Your task to perform on an android device: turn on priority inbox in the gmail app Image 0: 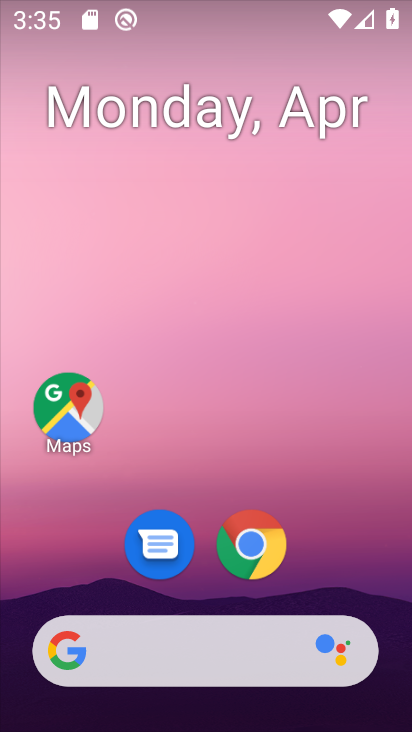
Step 0: drag from (318, 571) to (262, 31)
Your task to perform on an android device: turn on priority inbox in the gmail app Image 1: 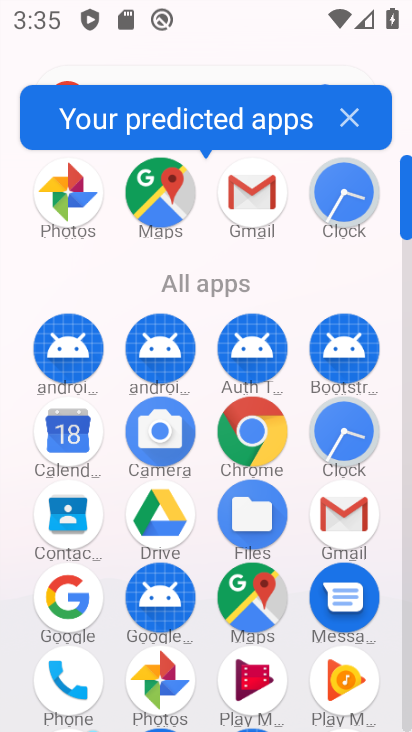
Step 1: click (342, 513)
Your task to perform on an android device: turn on priority inbox in the gmail app Image 2: 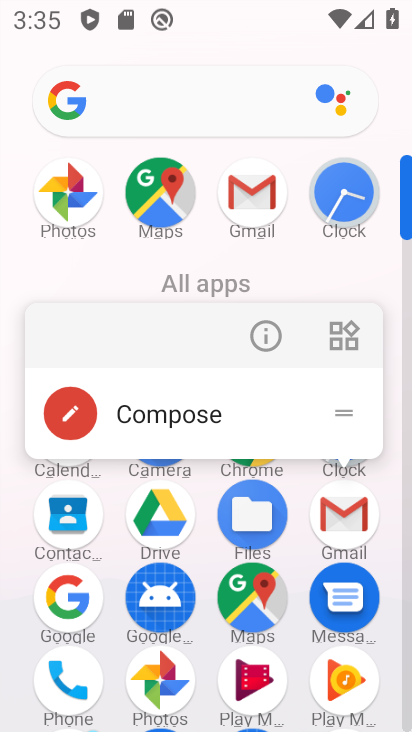
Step 2: click (342, 513)
Your task to perform on an android device: turn on priority inbox in the gmail app Image 3: 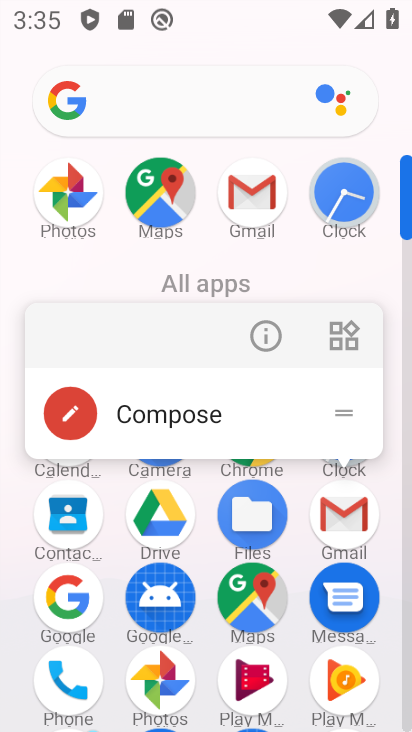
Step 3: click (342, 513)
Your task to perform on an android device: turn on priority inbox in the gmail app Image 4: 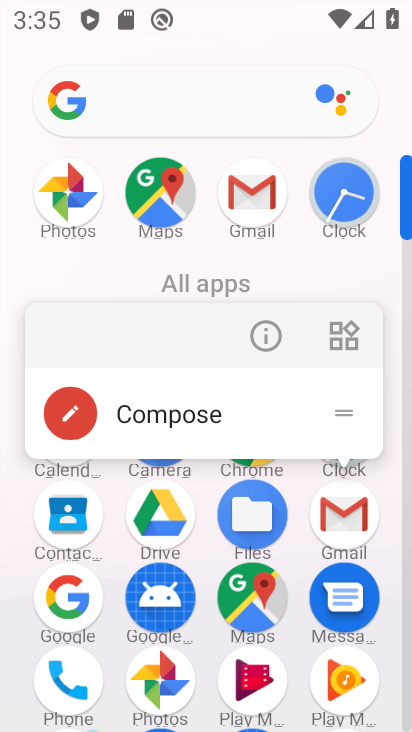
Step 4: click (348, 519)
Your task to perform on an android device: turn on priority inbox in the gmail app Image 5: 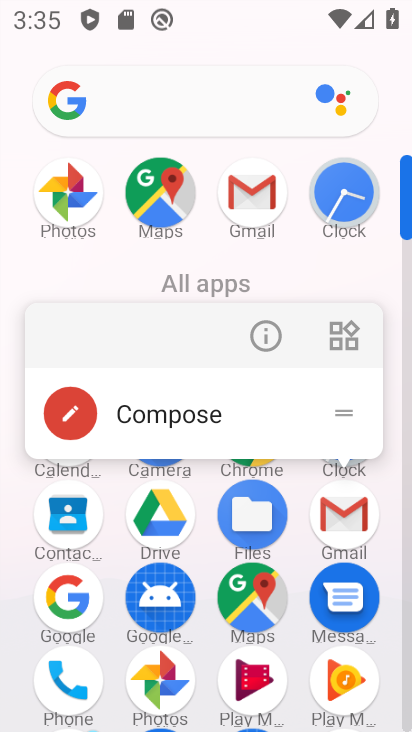
Step 5: click (347, 519)
Your task to perform on an android device: turn on priority inbox in the gmail app Image 6: 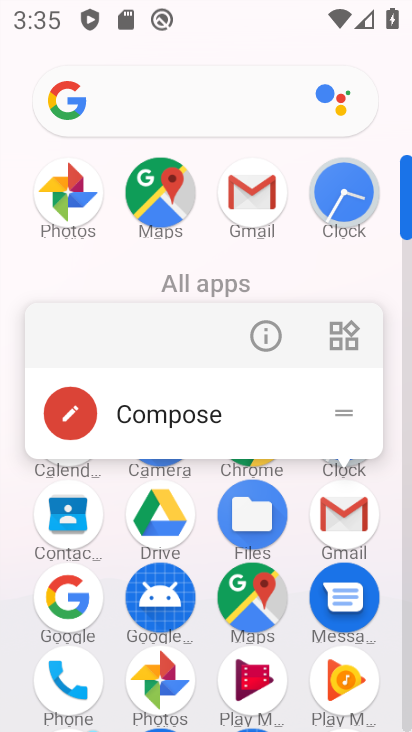
Step 6: click (347, 519)
Your task to perform on an android device: turn on priority inbox in the gmail app Image 7: 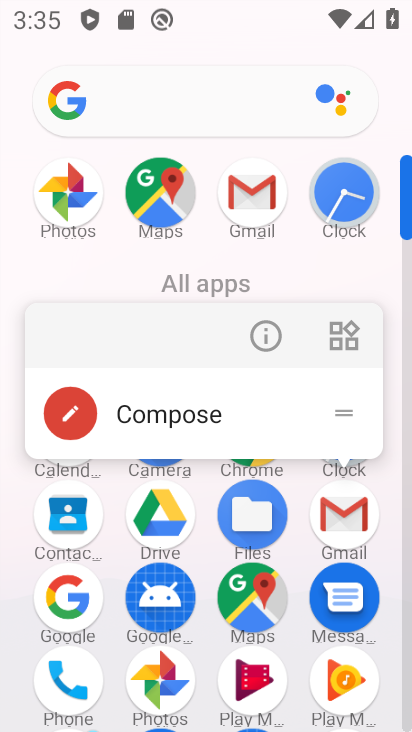
Step 7: click (336, 511)
Your task to perform on an android device: turn on priority inbox in the gmail app Image 8: 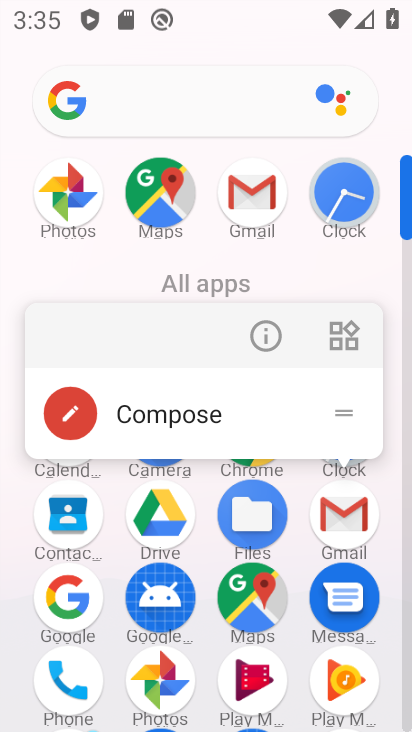
Step 8: click (349, 515)
Your task to perform on an android device: turn on priority inbox in the gmail app Image 9: 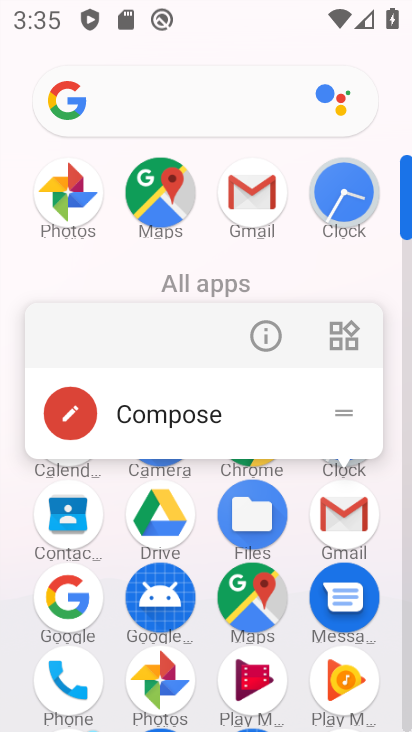
Step 9: click (356, 513)
Your task to perform on an android device: turn on priority inbox in the gmail app Image 10: 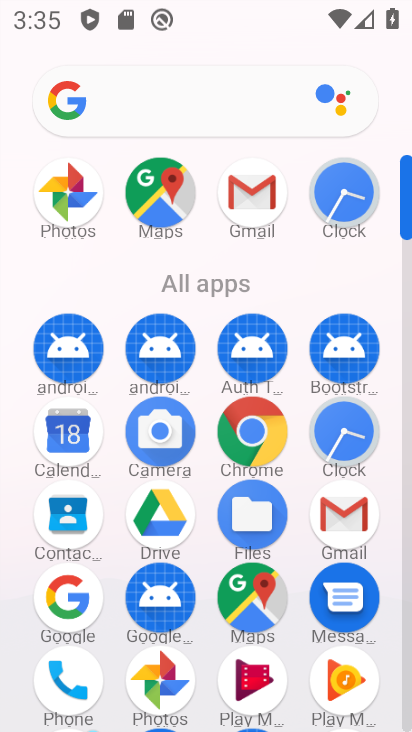
Step 10: click (314, 519)
Your task to perform on an android device: turn on priority inbox in the gmail app Image 11: 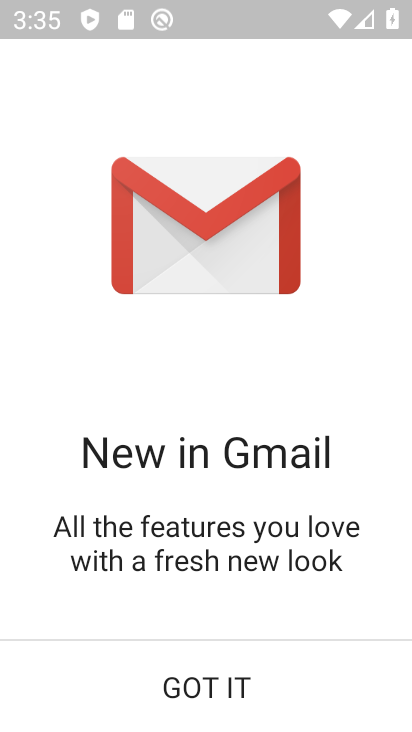
Step 11: click (231, 715)
Your task to perform on an android device: turn on priority inbox in the gmail app Image 12: 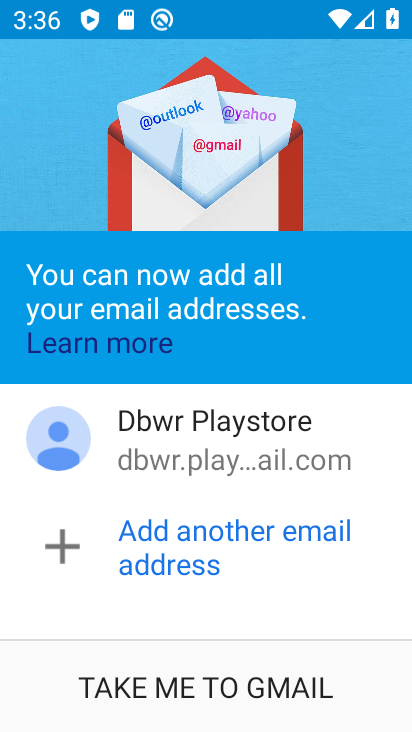
Step 12: click (238, 705)
Your task to perform on an android device: turn on priority inbox in the gmail app Image 13: 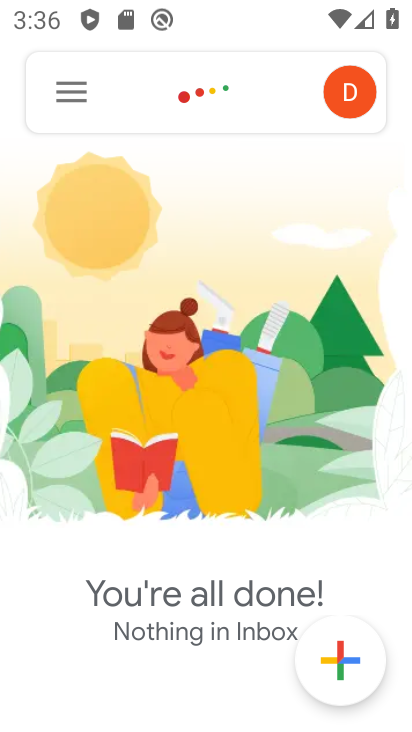
Step 13: click (67, 100)
Your task to perform on an android device: turn on priority inbox in the gmail app Image 14: 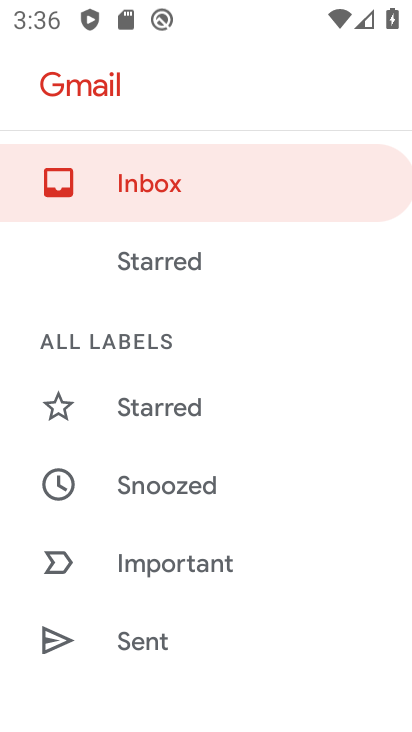
Step 14: drag from (290, 637) to (241, 111)
Your task to perform on an android device: turn on priority inbox in the gmail app Image 15: 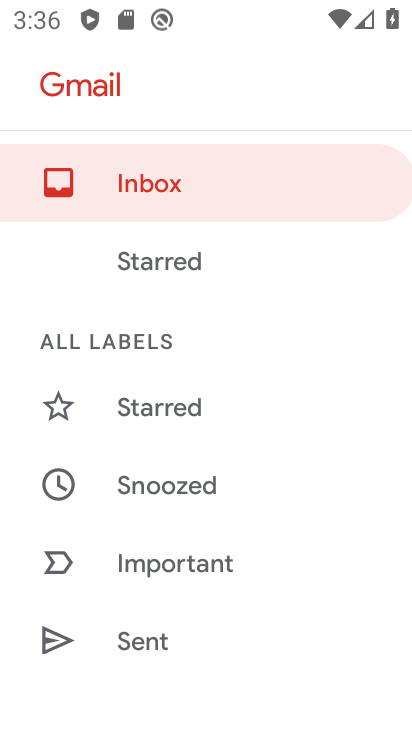
Step 15: drag from (219, 583) to (252, 78)
Your task to perform on an android device: turn on priority inbox in the gmail app Image 16: 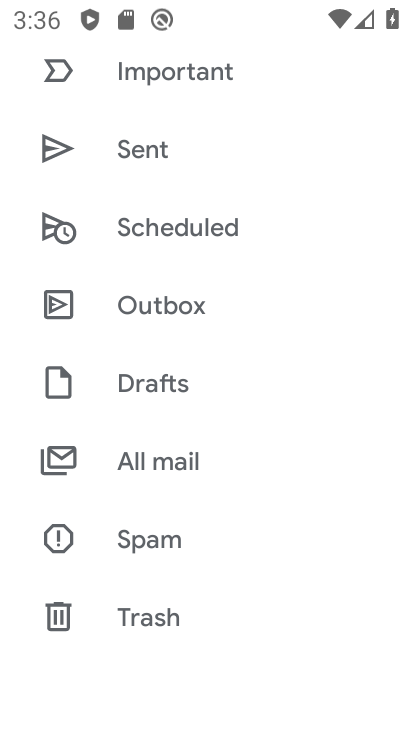
Step 16: drag from (239, 560) to (237, 211)
Your task to perform on an android device: turn on priority inbox in the gmail app Image 17: 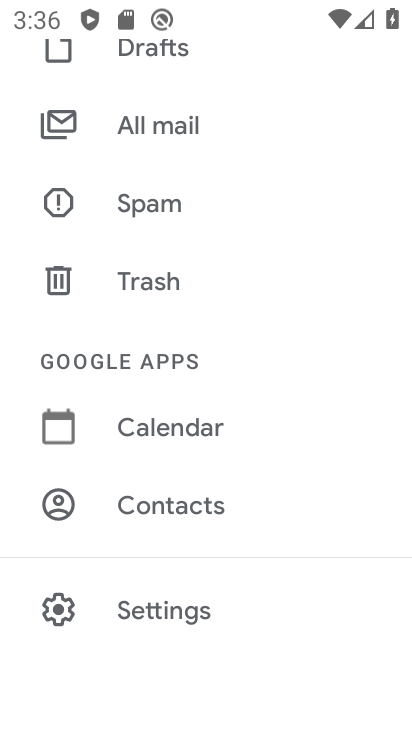
Step 17: click (186, 605)
Your task to perform on an android device: turn on priority inbox in the gmail app Image 18: 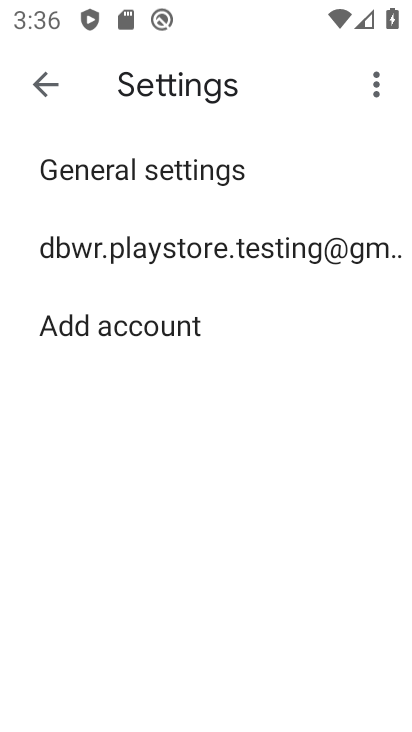
Step 18: click (165, 251)
Your task to perform on an android device: turn on priority inbox in the gmail app Image 19: 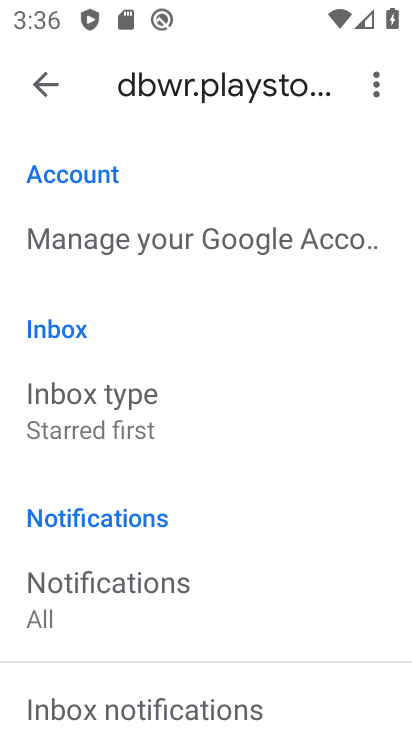
Step 19: click (116, 429)
Your task to perform on an android device: turn on priority inbox in the gmail app Image 20: 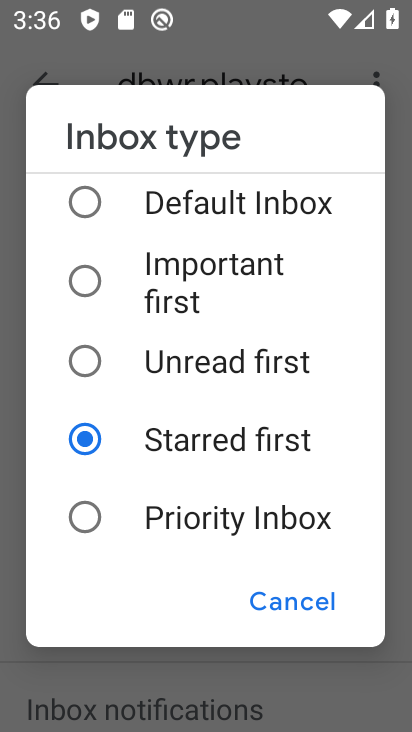
Step 20: click (77, 510)
Your task to perform on an android device: turn on priority inbox in the gmail app Image 21: 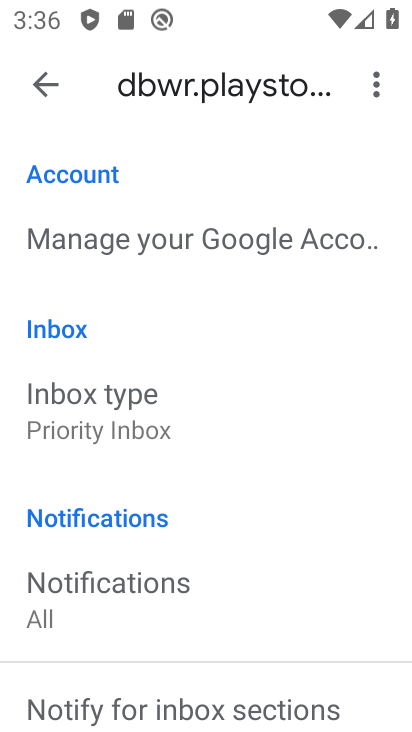
Step 21: task complete